Your task to perform on an android device: Go to wifi settings Image 0: 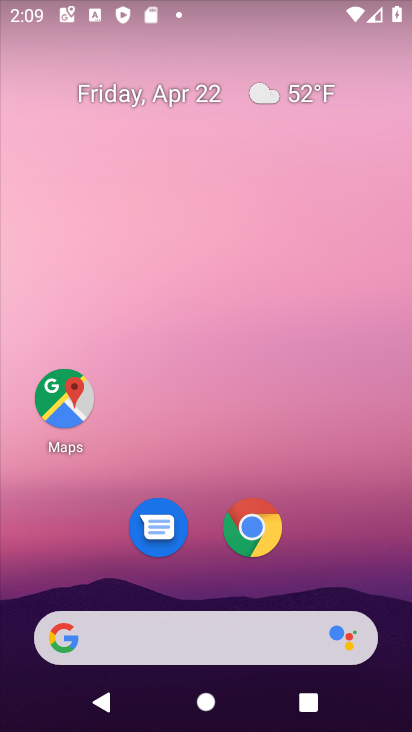
Step 0: drag from (319, 538) to (324, 95)
Your task to perform on an android device: Go to wifi settings Image 1: 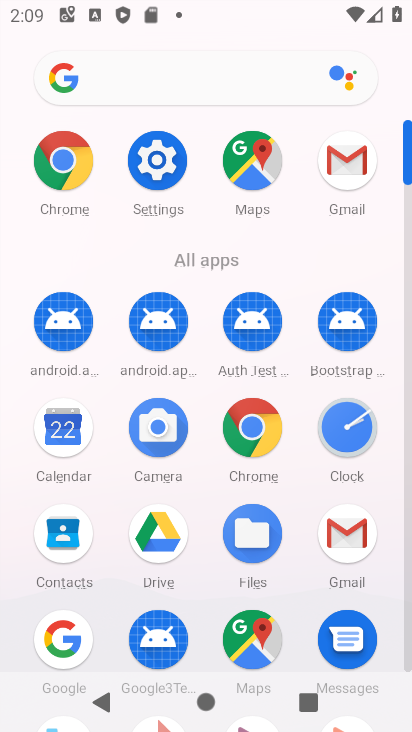
Step 1: click (166, 173)
Your task to perform on an android device: Go to wifi settings Image 2: 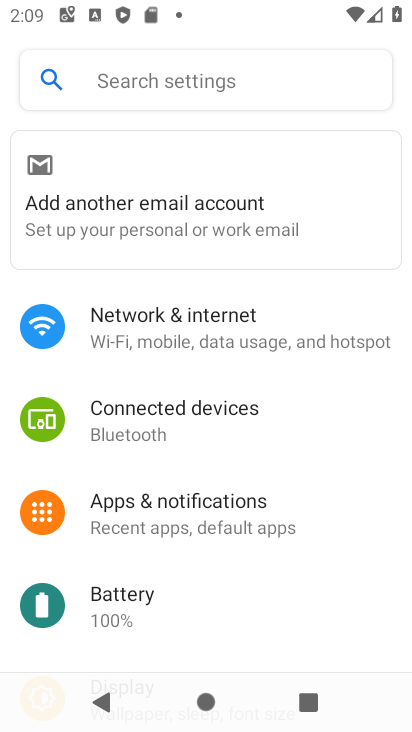
Step 2: click (228, 338)
Your task to perform on an android device: Go to wifi settings Image 3: 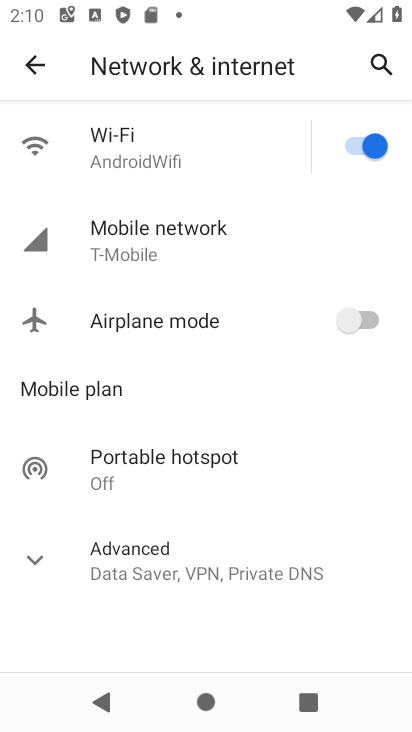
Step 3: click (178, 146)
Your task to perform on an android device: Go to wifi settings Image 4: 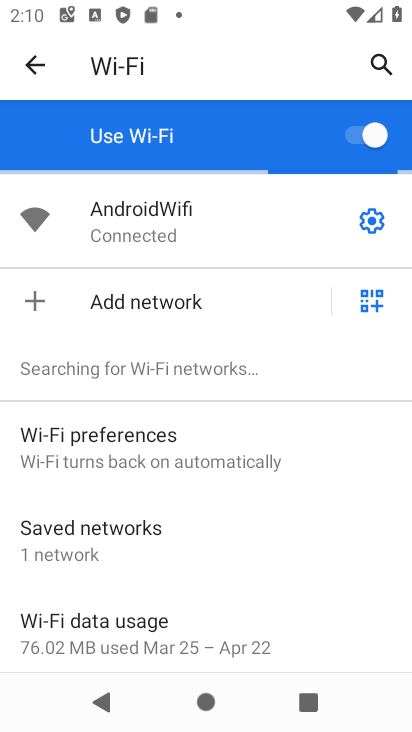
Step 4: task complete